Your task to perform on an android device: What's on my calendar tomorrow? Image 0: 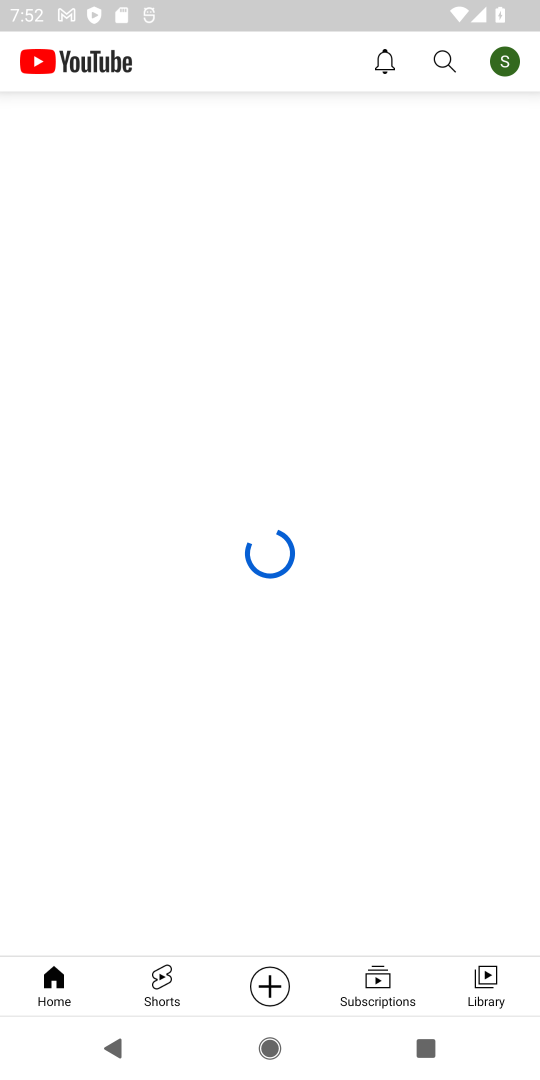
Step 0: press home button
Your task to perform on an android device: What's on my calendar tomorrow? Image 1: 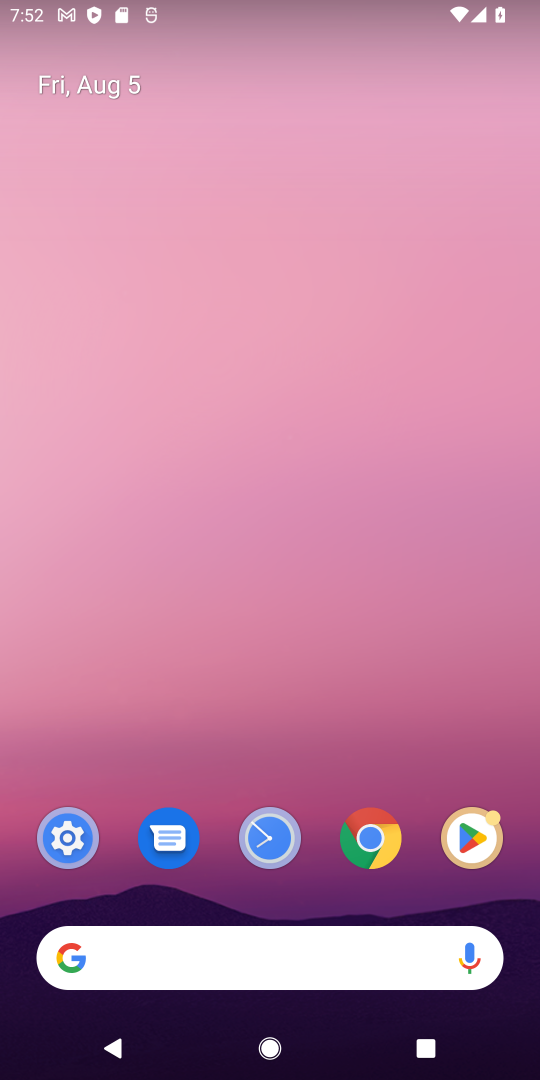
Step 1: drag from (276, 837) to (334, 343)
Your task to perform on an android device: What's on my calendar tomorrow? Image 2: 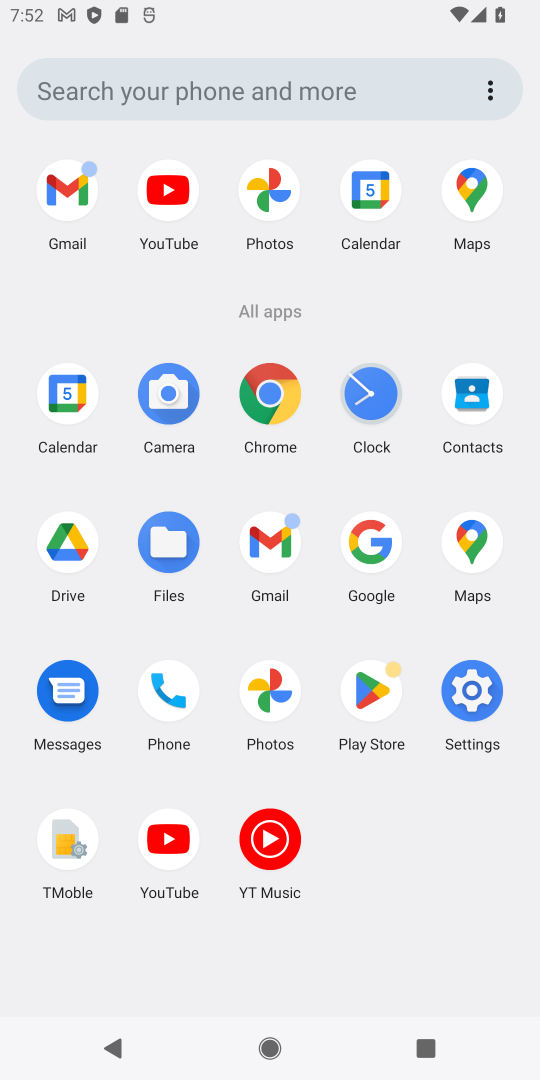
Step 2: click (57, 389)
Your task to perform on an android device: What's on my calendar tomorrow? Image 3: 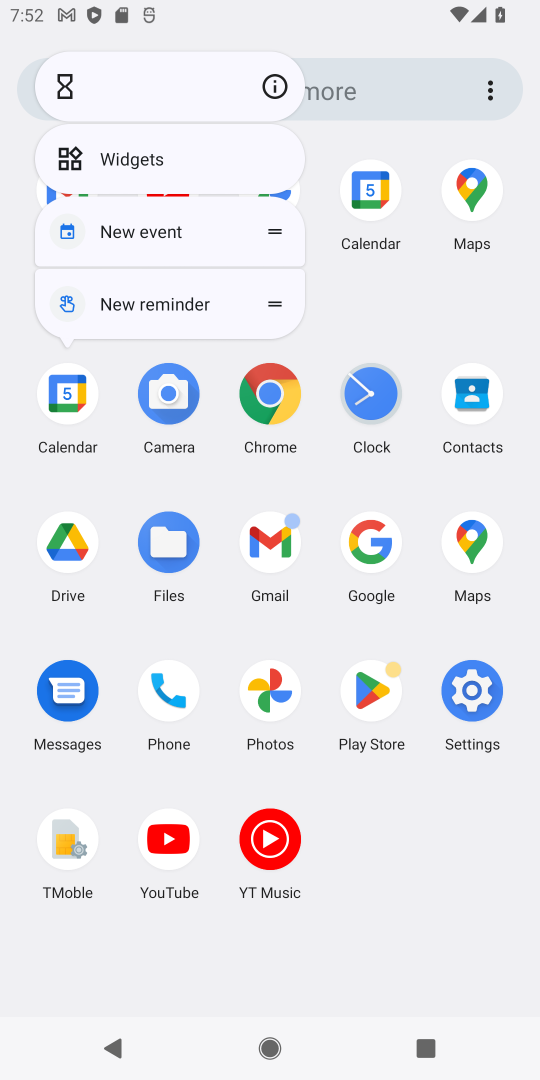
Step 3: click (57, 389)
Your task to perform on an android device: What's on my calendar tomorrow? Image 4: 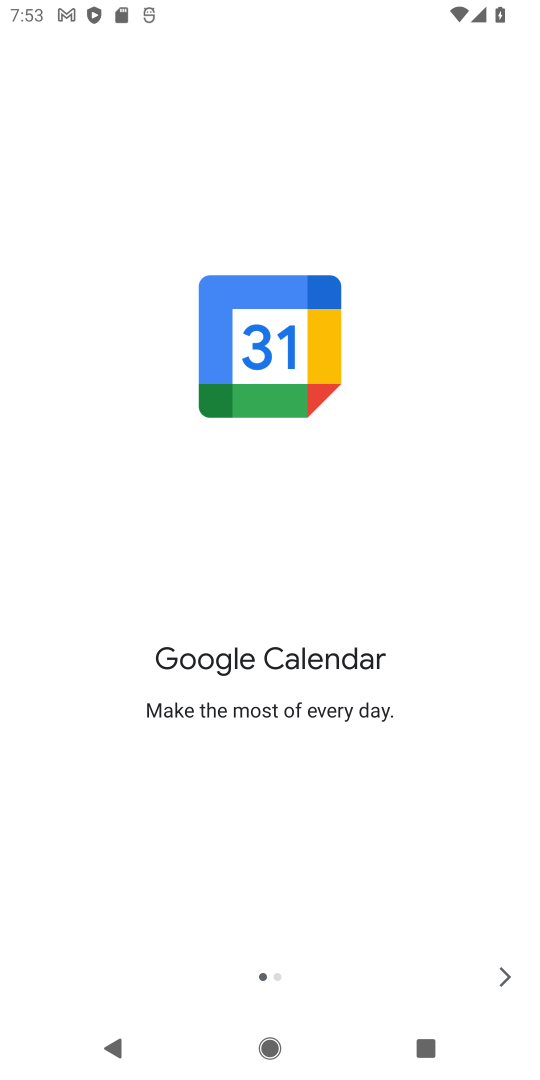
Step 4: click (511, 975)
Your task to perform on an android device: What's on my calendar tomorrow? Image 5: 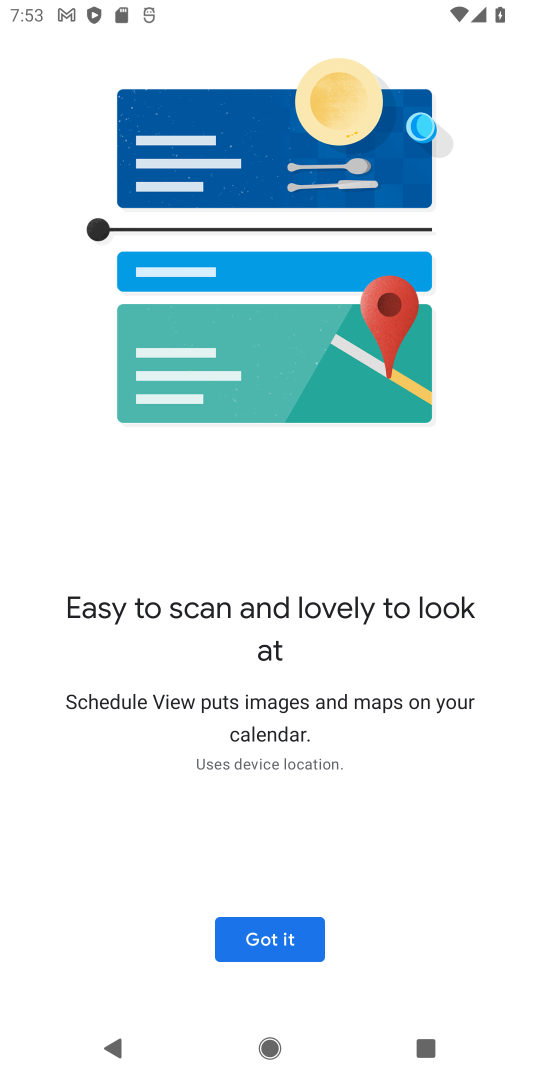
Step 5: click (300, 941)
Your task to perform on an android device: What's on my calendar tomorrow? Image 6: 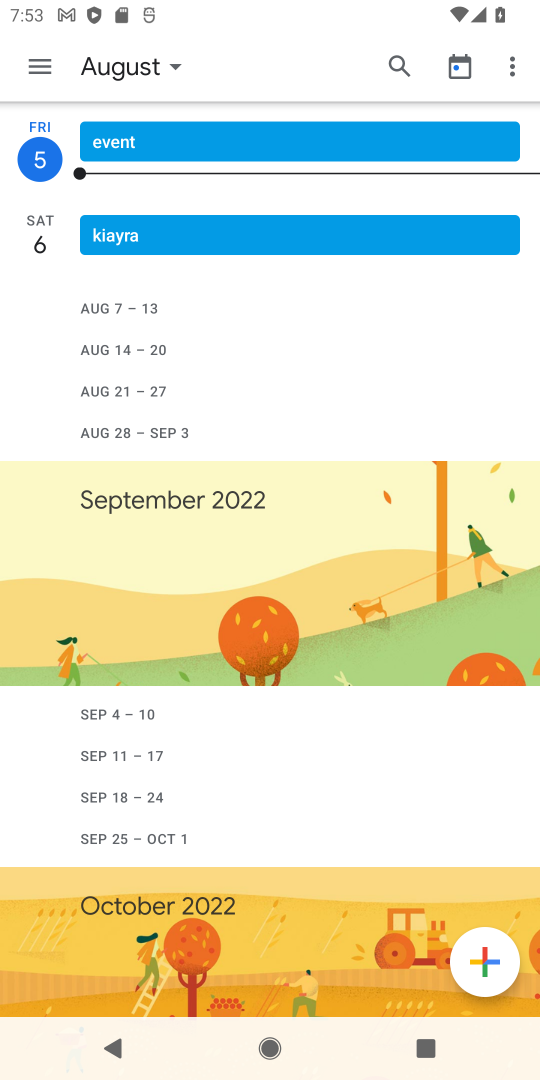
Step 6: task complete